Your task to perform on an android device: How do I get to the nearest Nordstrom? Image 0: 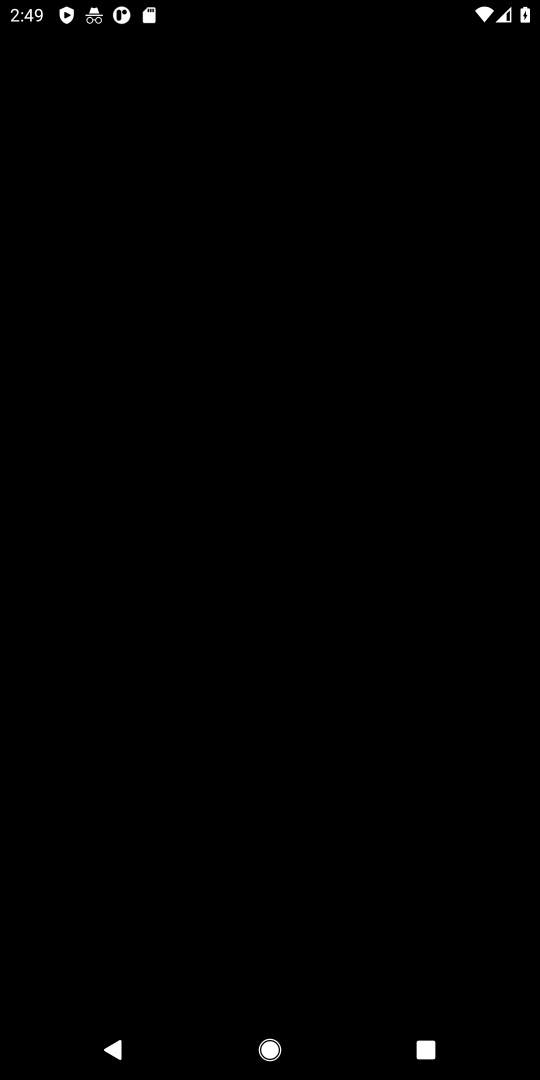
Step 0: press home button
Your task to perform on an android device: How do I get to the nearest Nordstrom? Image 1: 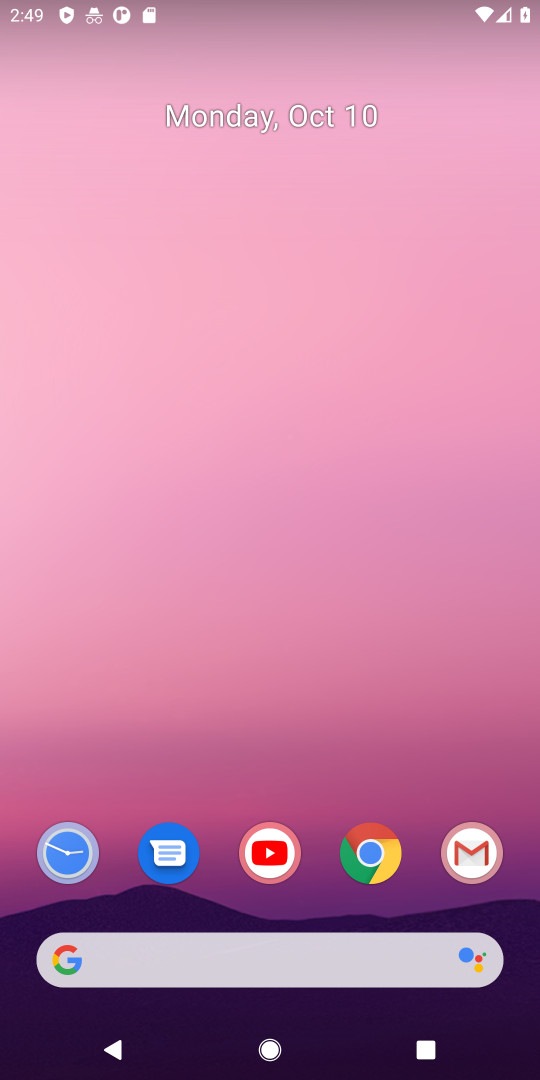
Step 1: click (380, 845)
Your task to perform on an android device: How do I get to the nearest Nordstrom? Image 2: 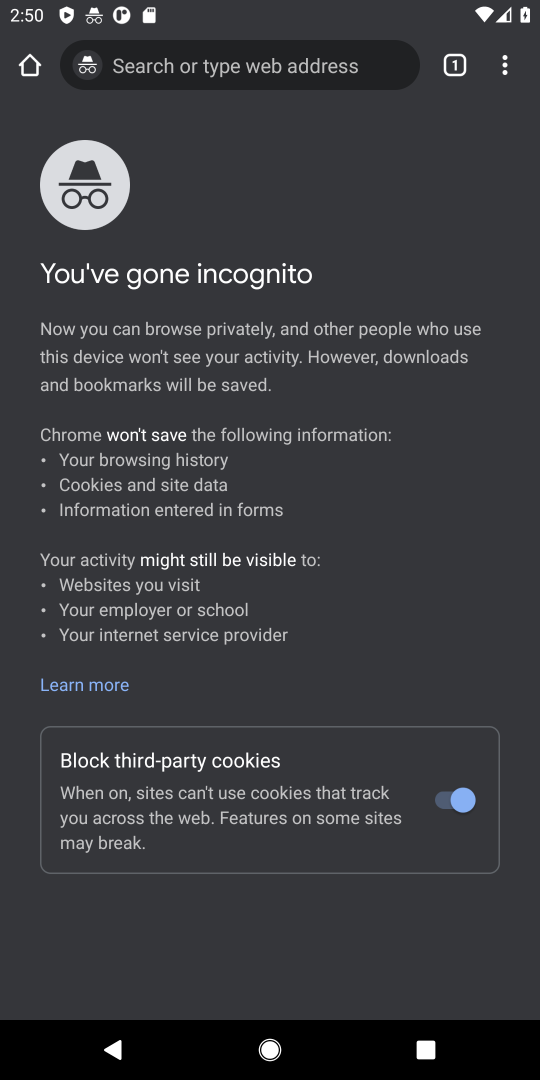
Step 2: click (451, 64)
Your task to perform on an android device: How do I get to the nearest Nordstrom? Image 3: 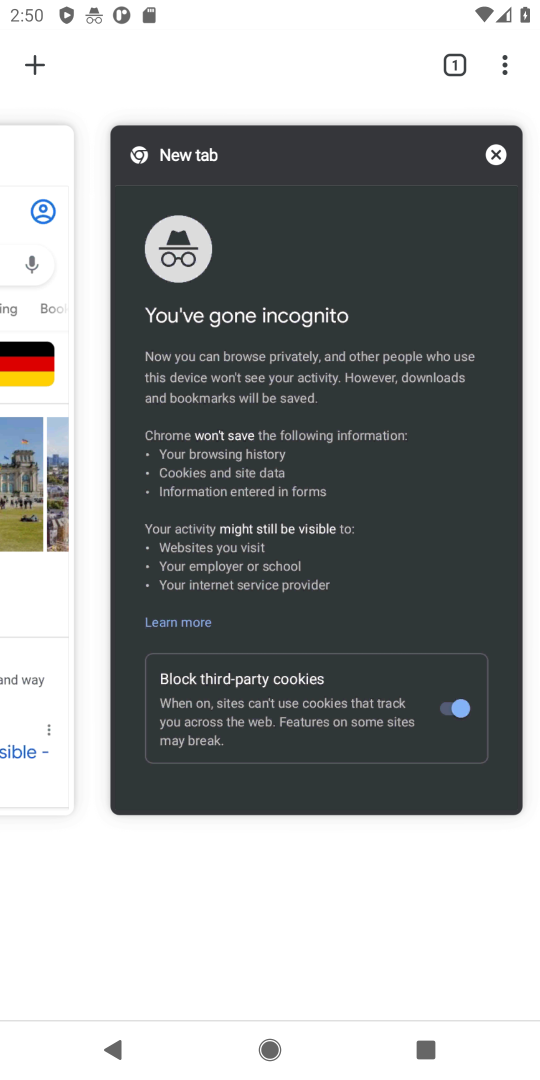
Step 3: click (497, 160)
Your task to perform on an android device: How do I get to the nearest Nordstrom? Image 4: 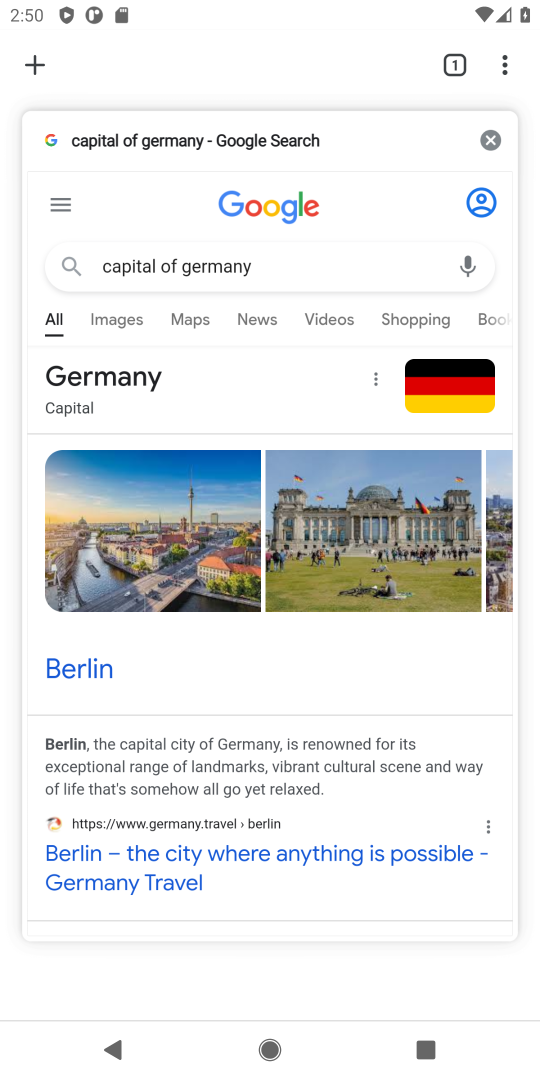
Step 4: click (372, 143)
Your task to perform on an android device: How do I get to the nearest Nordstrom? Image 5: 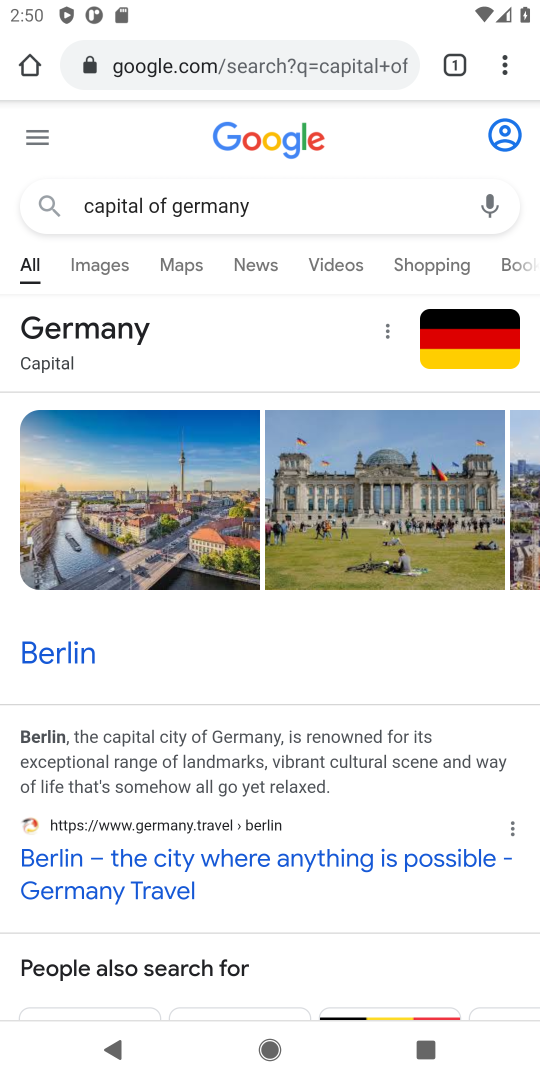
Step 5: click (246, 78)
Your task to perform on an android device: How do I get to the nearest Nordstrom? Image 6: 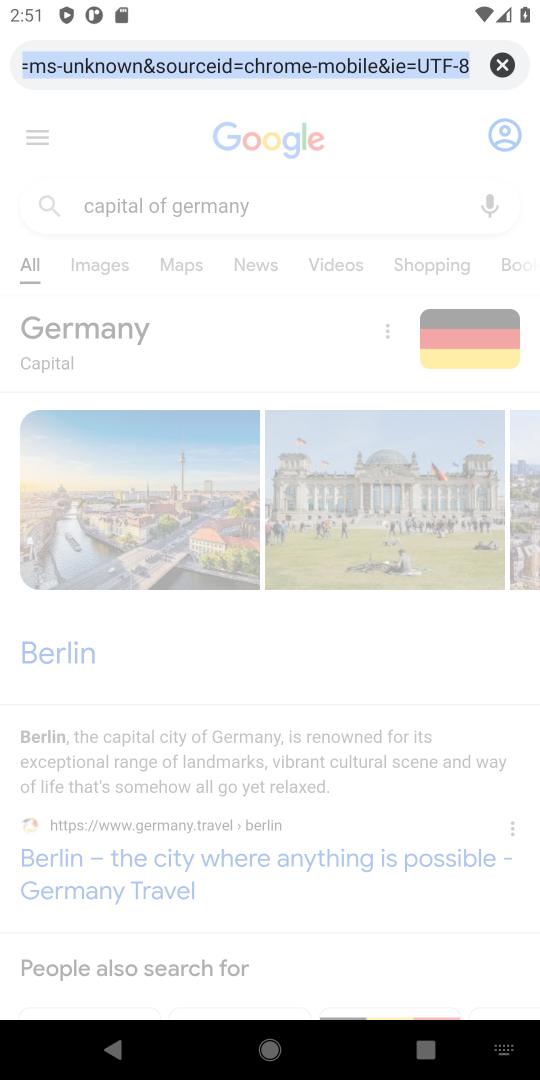
Step 6: type "nearest nordstrom"
Your task to perform on an android device: How do I get to the nearest Nordstrom? Image 7: 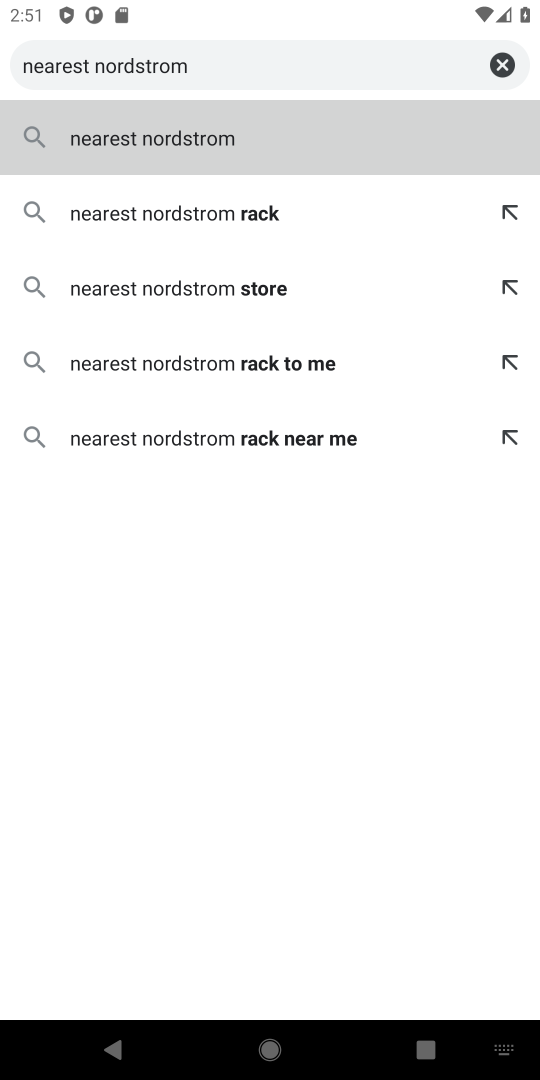
Step 7: click (290, 139)
Your task to perform on an android device: How do I get to the nearest Nordstrom? Image 8: 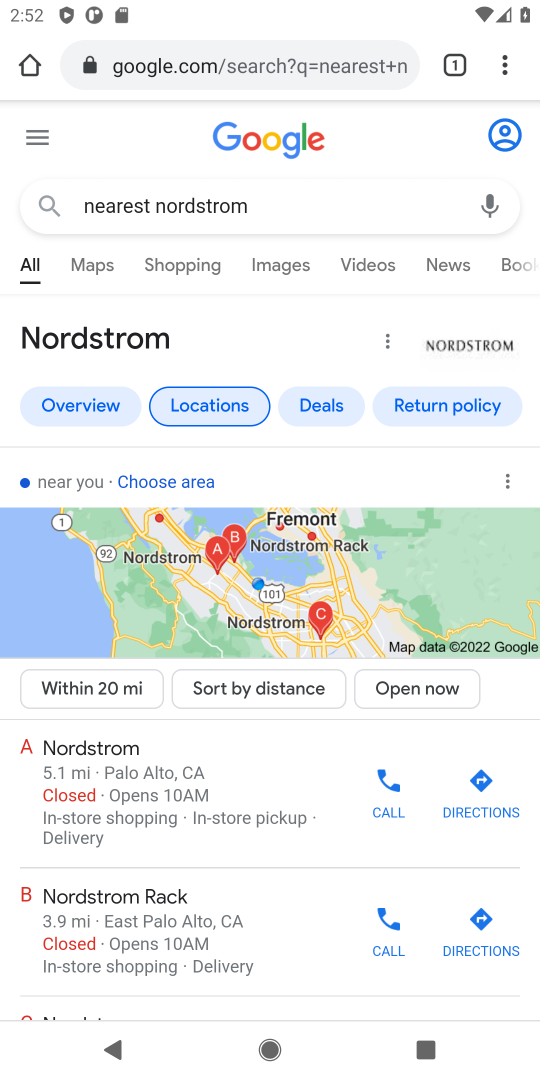
Step 8: drag from (254, 808) to (257, 593)
Your task to perform on an android device: How do I get to the nearest Nordstrom? Image 9: 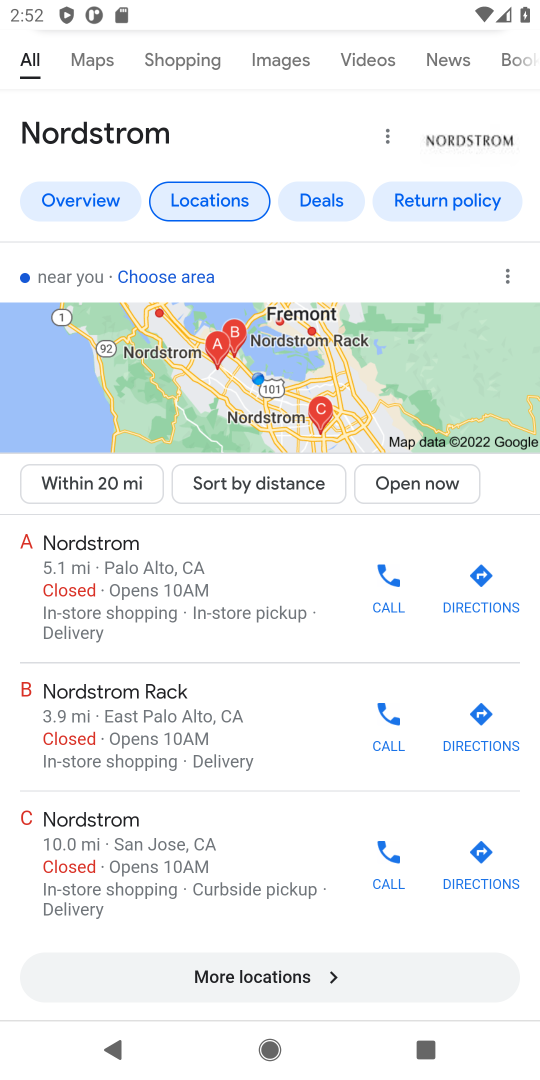
Step 9: click (488, 716)
Your task to perform on an android device: How do I get to the nearest Nordstrom? Image 10: 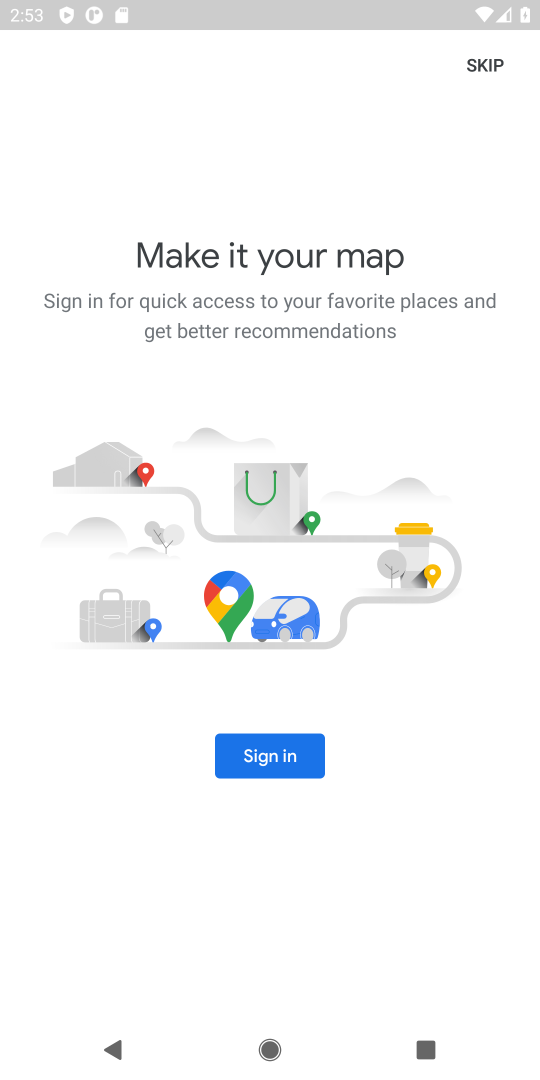
Step 10: task complete